Your task to perform on an android device: Turn on the flashlight Image 0: 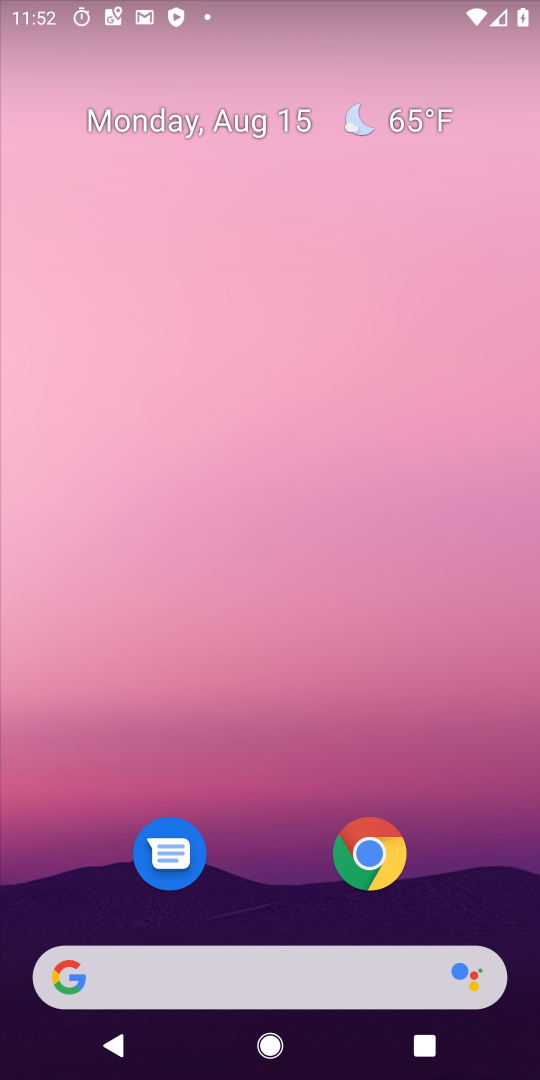
Step 0: drag from (307, 924) to (292, 239)
Your task to perform on an android device: Turn on the flashlight Image 1: 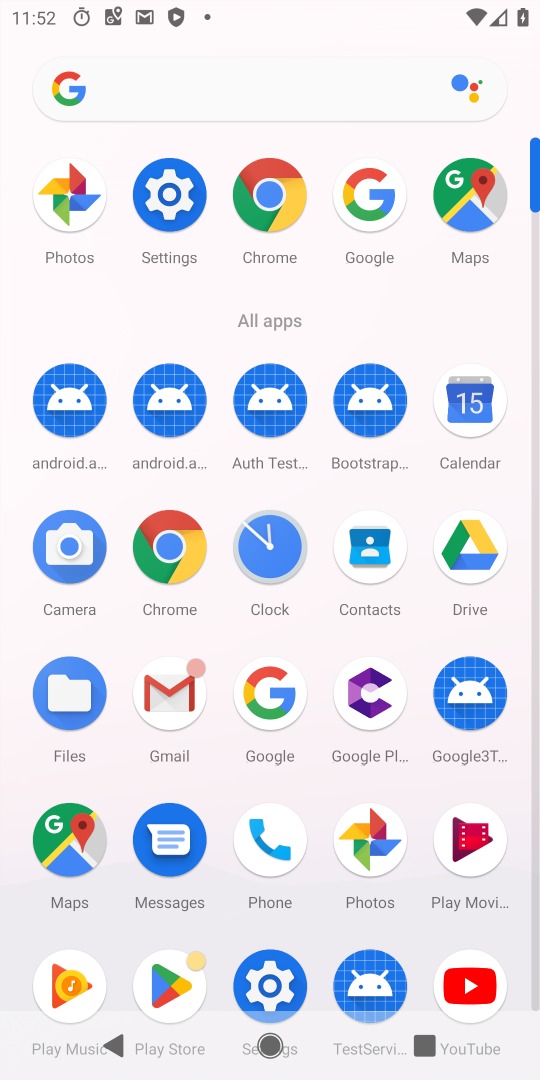
Step 1: drag from (258, 2) to (242, 823)
Your task to perform on an android device: Turn on the flashlight Image 2: 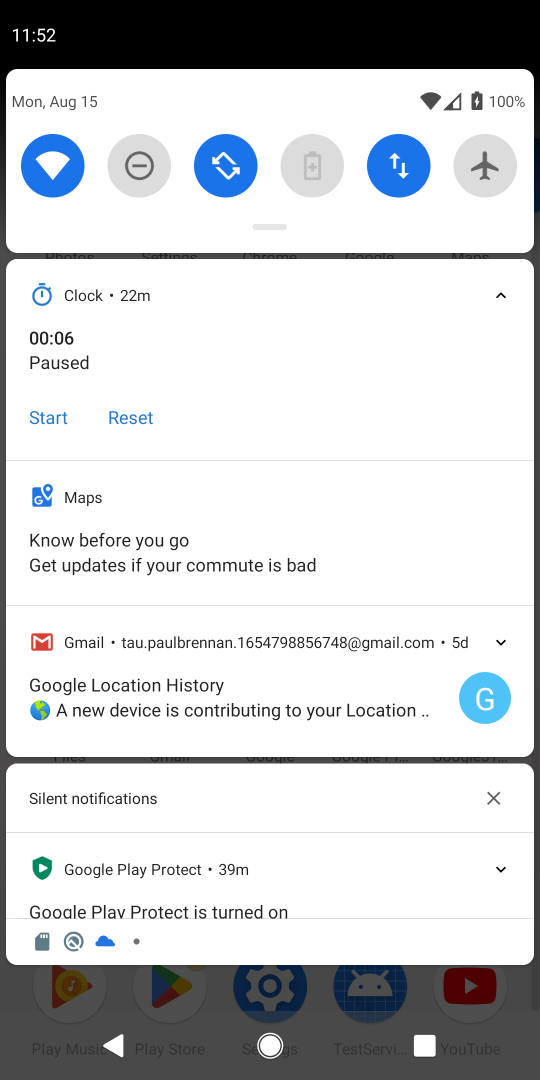
Step 2: drag from (161, 142) to (97, 930)
Your task to perform on an android device: Turn on the flashlight Image 3: 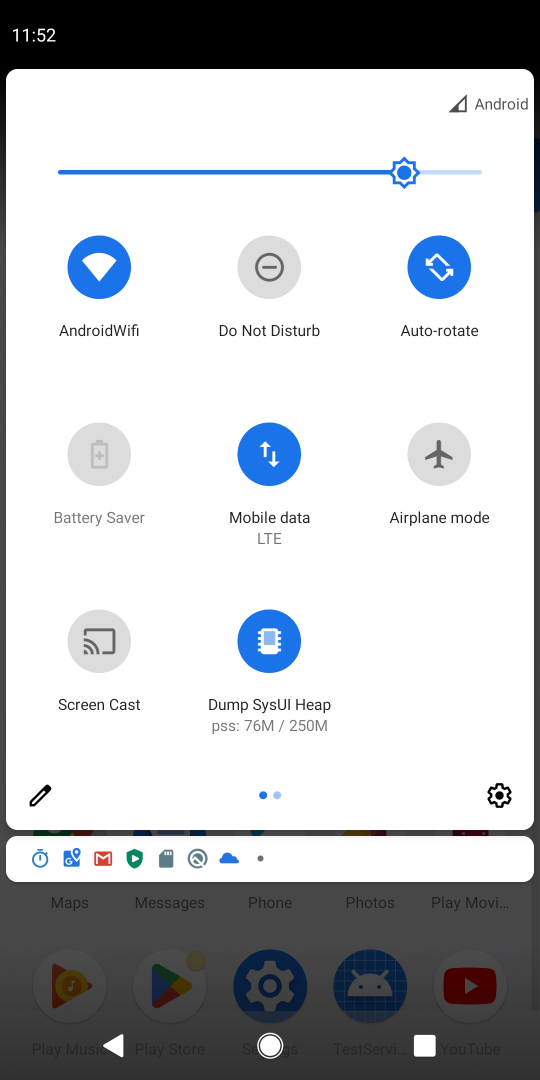
Step 3: drag from (481, 552) to (54, 558)
Your task to perform on an android device: Turn on the flashlight Image 4: 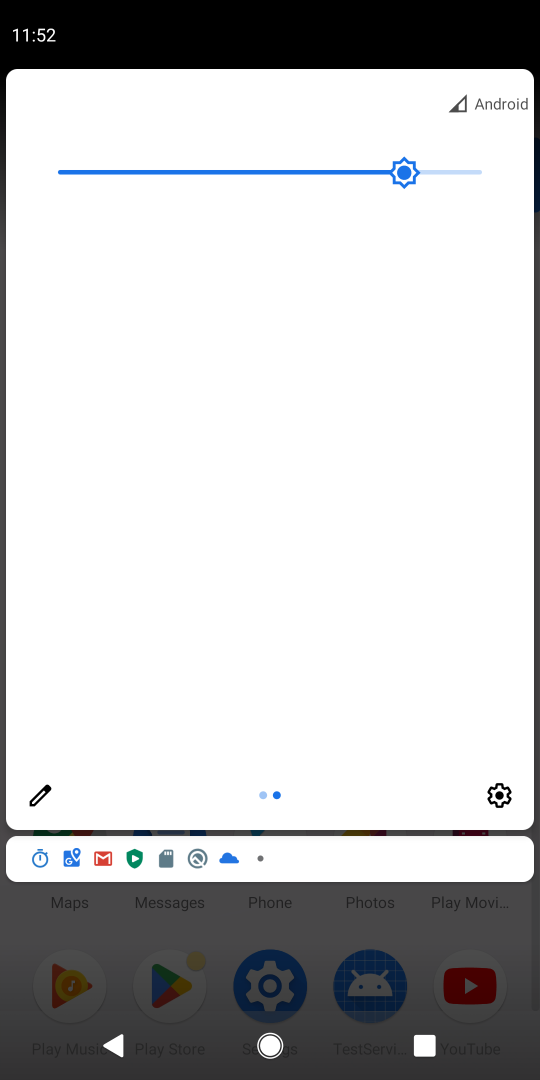
Step 4: click (50, 800)
Your task to perform on an android device: Turn on the flashlight Image 5: 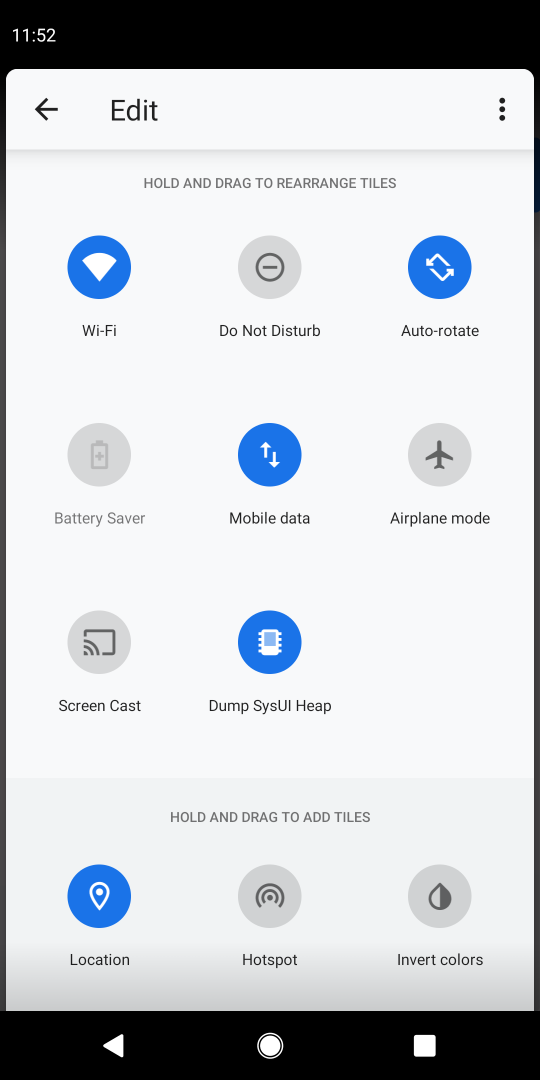
Step 5: task complete